Your task to perform on an android device: Go to eBay Image 0: 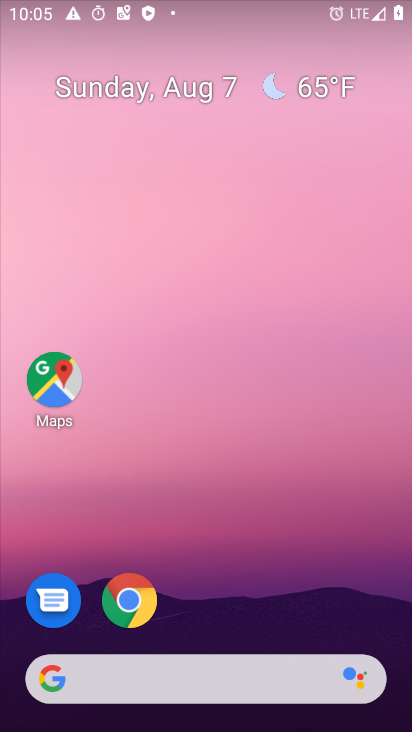
Step 0: drag from (198, 628) to (153, 376)
Your task to perform on an android device: Go to eBay Image 1: 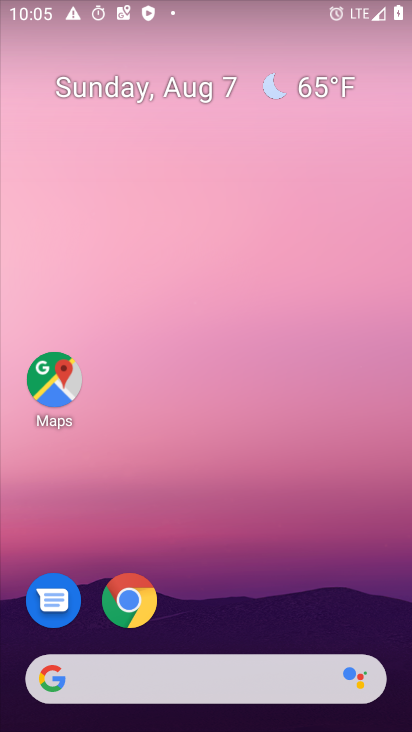
Step 1: click (153, 376)
Your task to perform on an android device: Go to eBay Image 2: 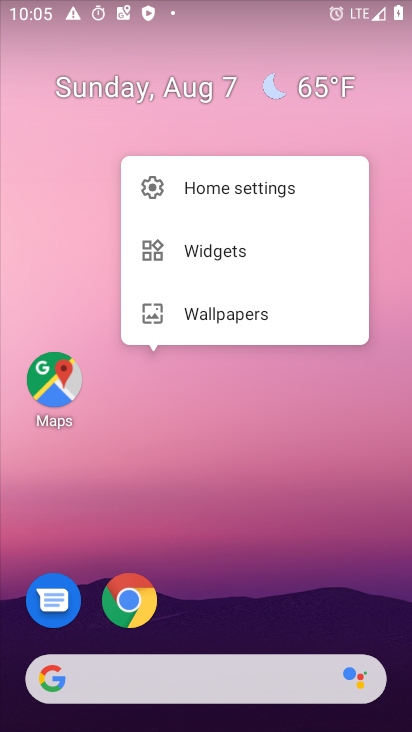
Step 2: click (213, 551)
Your task to perform on an android device: Go to eBay Image 3: 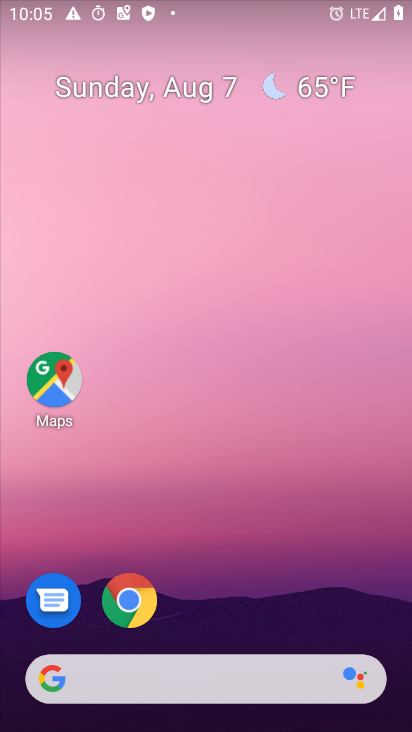
Step 3: click (123, 602)
Your task to perform on an android device: Go to eBay Image 4: 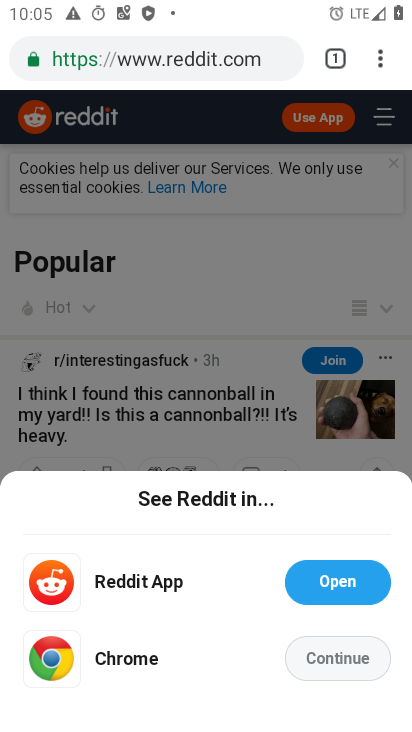
Step 4: click (316, 661)
Your task to perform on an android device: Go to eBay Image 5: 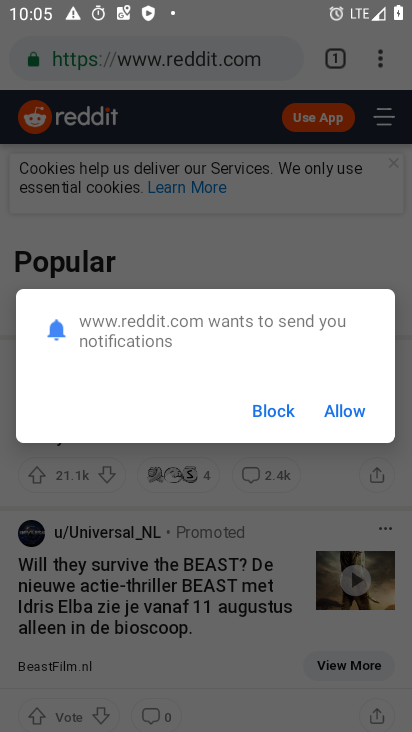
Step 5: click (334, 404)
Your task to perform on an android device: Go to eBay Image 6: 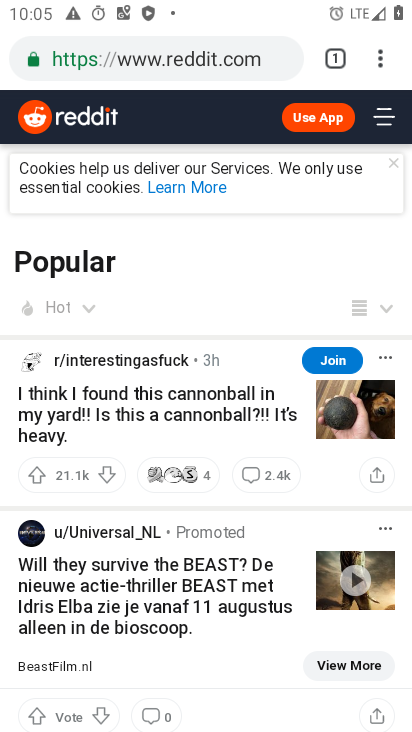
Step 6: press back button
Your task to perform on an android device: Go to eBay Image 7: 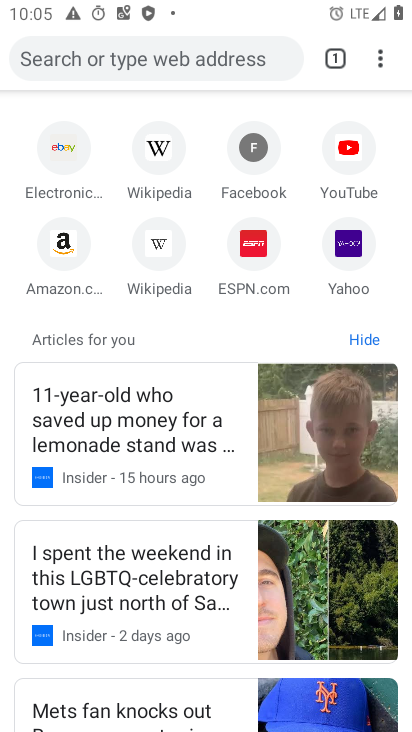
Step 7: click (67, 166)
Your task to perform on an android device: Go to eBay Image 8: 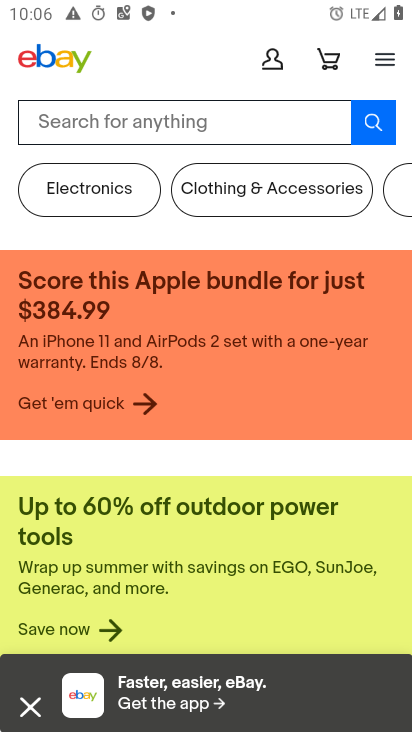
Step 8: task complete